Your task to perform on an android device: delete a single message in the gmail app Image 0: 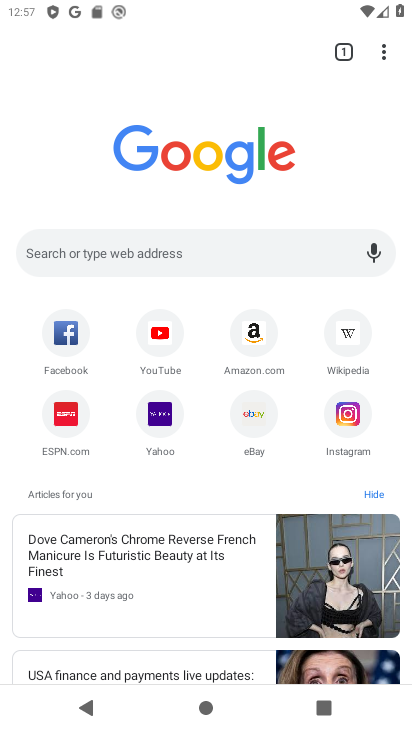
Step 0: press home button
Your task to perform on an android device: delete a single message in the gmail app Image 1: 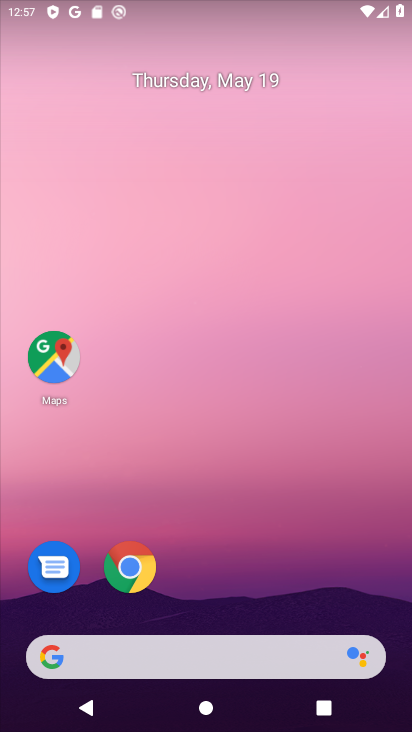
Step 1: drag from (332, 551) to (322, 123)
Your task to perform on an android device: delete a single message in the gmail app Image 2: 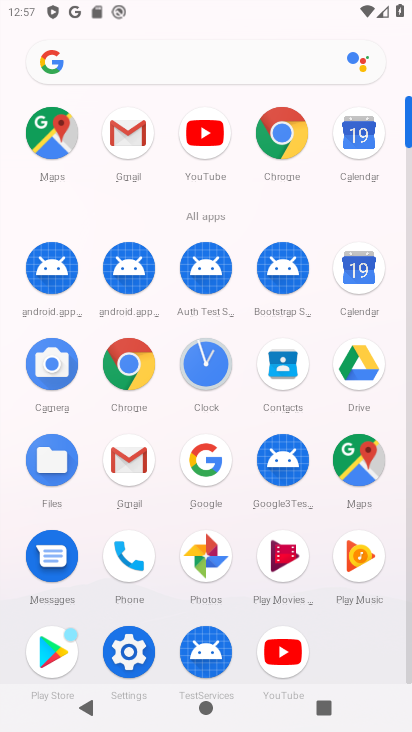
Step 2: click (134, 125)
Your task to perform on an android device: delete a single message in the gmail app Image 3: 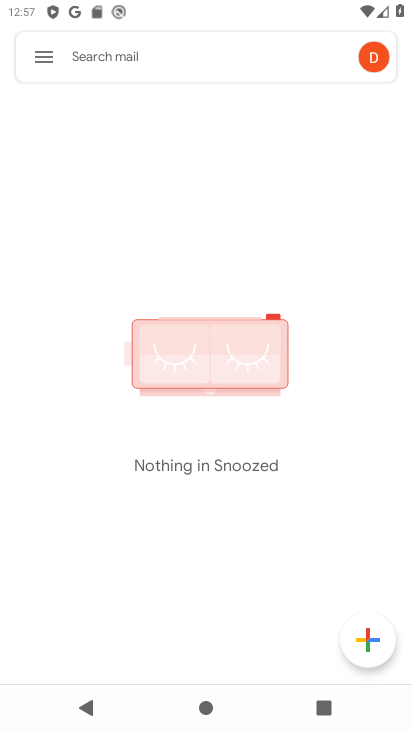
Step 3: click (33, 61)
Your task to perform on an android device: delete a single message in the gmail app Image 4: 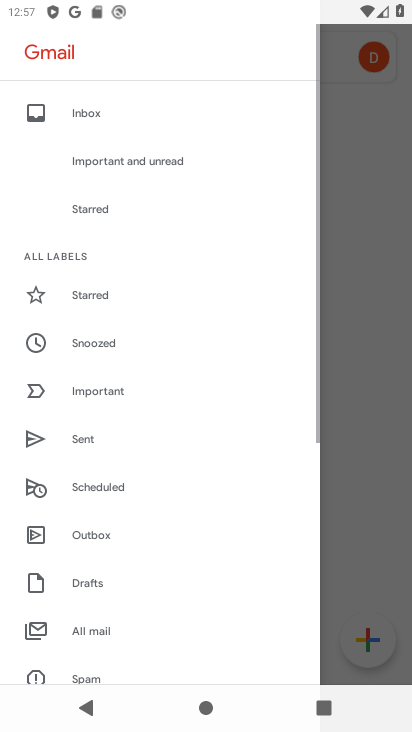
Step 4: click (86, 128)
Your task to perform on an android device: delete a single message in the gmail app Image 5: 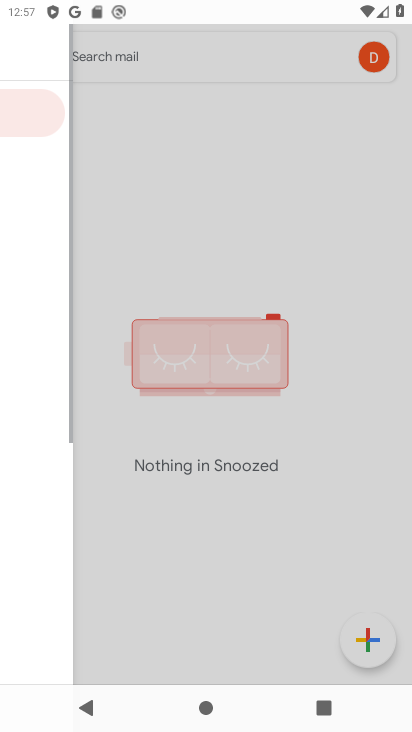
Step 5: click (82, 124)
Your task to perform on an android device: delete a single message in the gmail app Image 6: 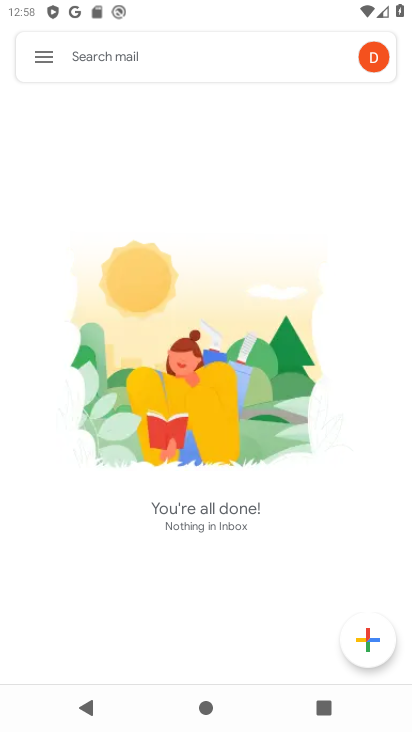
Step 6: task complete